Your task to perform on an android device: Open the map Image 0: 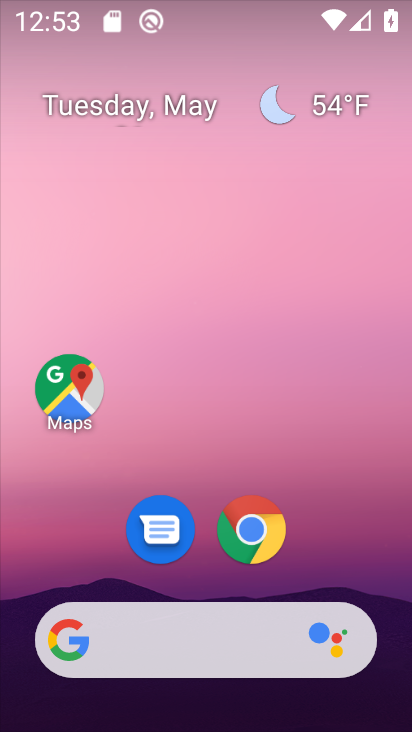
Step 0: click (69, 382)
Your task to perform on an android device: Open the map Image 1: 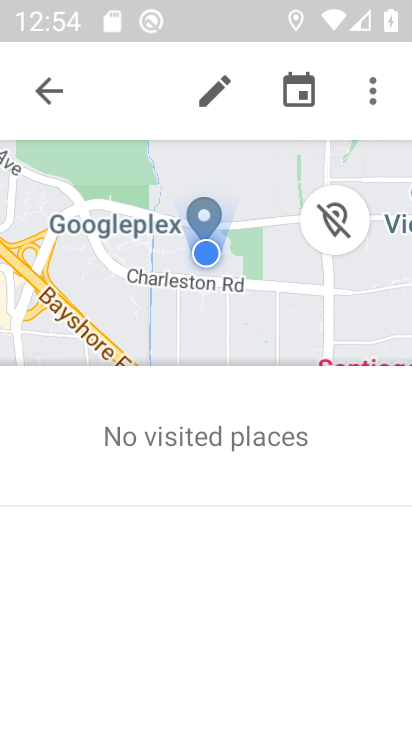
Step 1: task complete